Your task to perform on an android device: make emails show in primary in the gmail app Image 0: 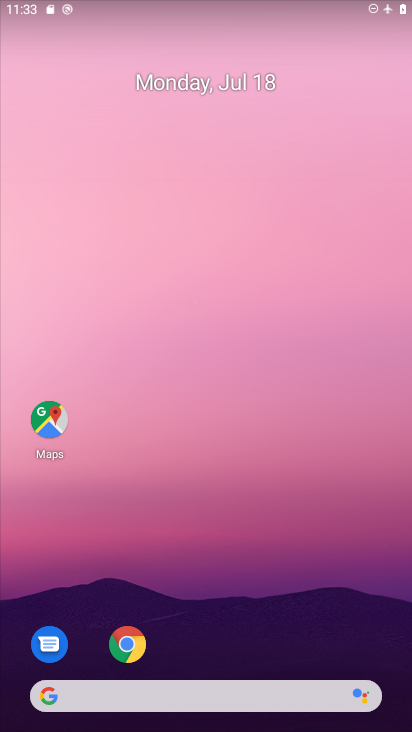
Step 0: drag from (209, 592) to (135, 36)
Your task to perform on an android device: make emails show in primary in the gmail app Image 1: 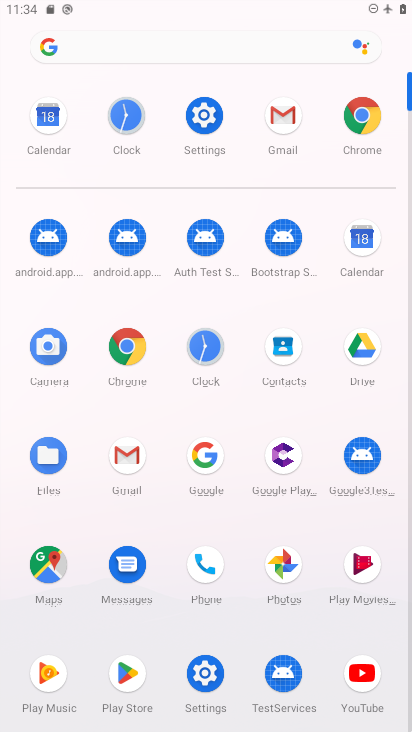
Step 1: click (133, 467)
Your task to perform on an android device: make emails show in primary in the gmail app Image 2: 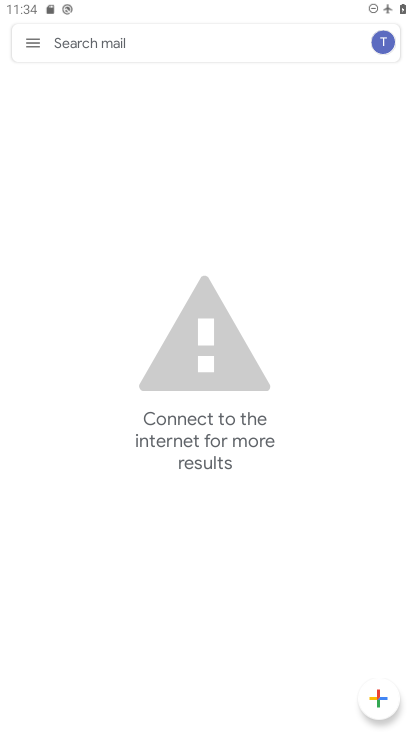
Step 2: click (30, 34)
Your task to perform on an android device: make emails show in primary in the gmail app Image 3: 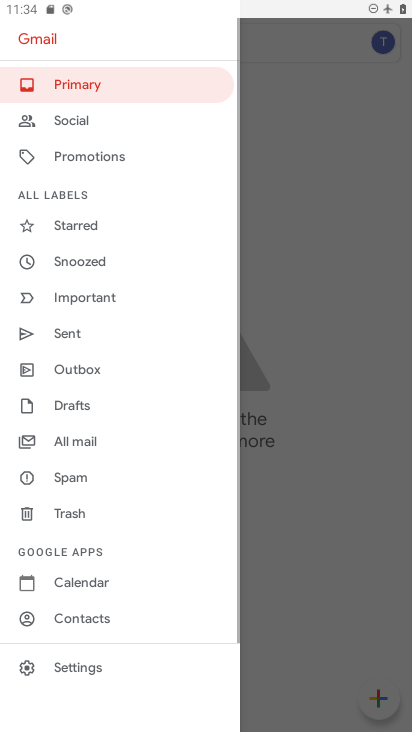
Step 3: click (73, 85)
Your task to perform on an android device: make emails show in primary in the gmail app Image 4: 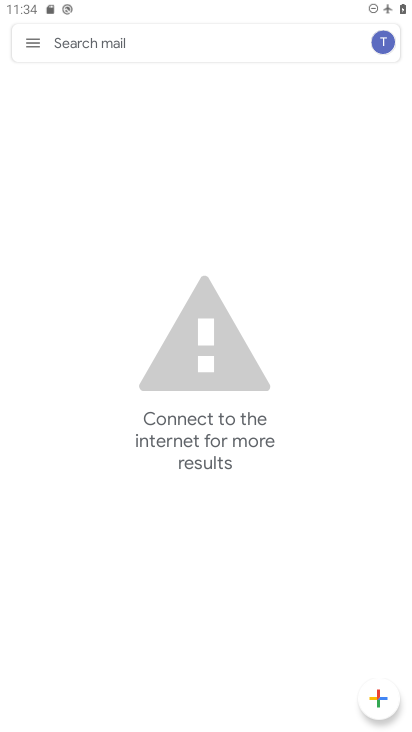
Step 4: task complete